Your task to perform on an android device: Open Google Maps and go to "Timeline" Image 0: 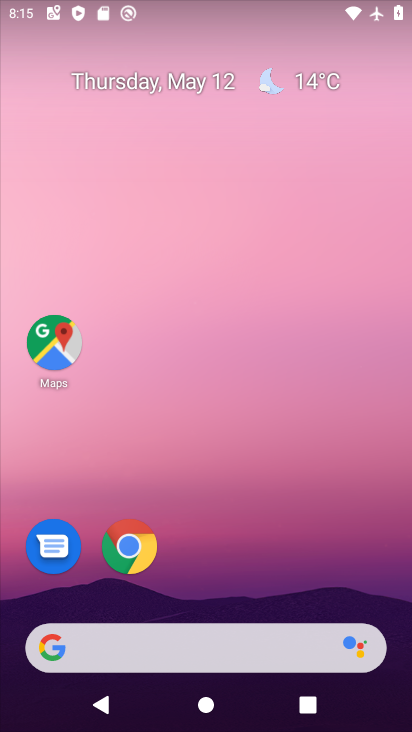
Step 0: click (49, 348)
Your task to perform on an android device: Open Google Maps and go to "Timeline" Image 1: 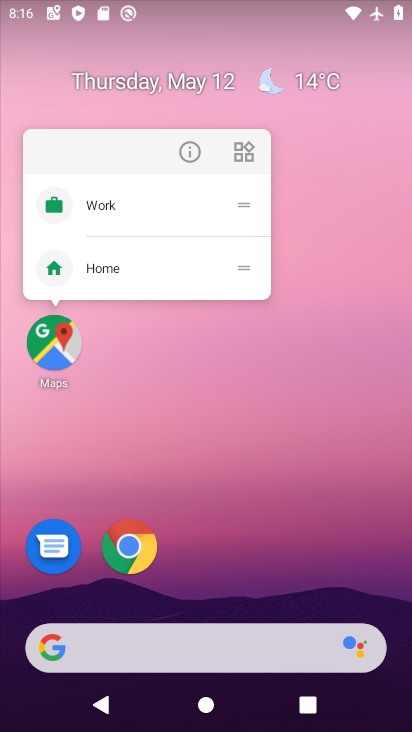
Step 1: click (59, 352)
Your task to perform on an android device: Open Google Maps and go to "Timeline" Image 2: 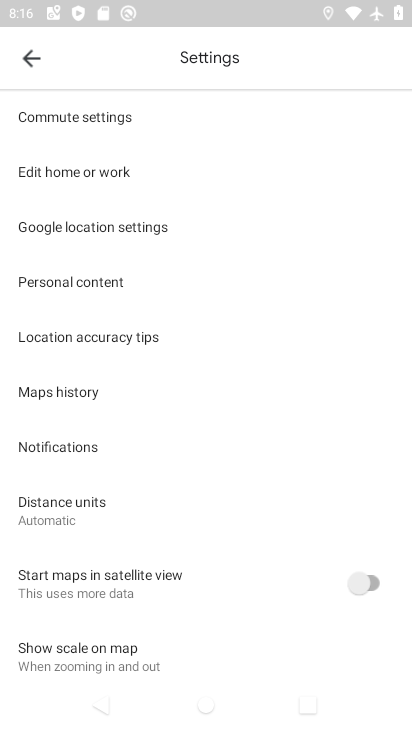
Step 2: click (34, 58)
Your task to perform on an android device: Open Google Maps and go to "Timeline" Image 3: 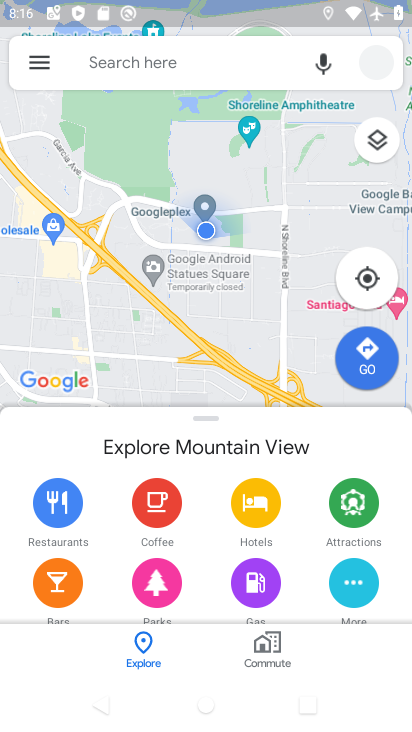
Step 3: click (29, 62)
Your task to perform on an android device: Open Google Maps and go to "Timeline" Image 4: 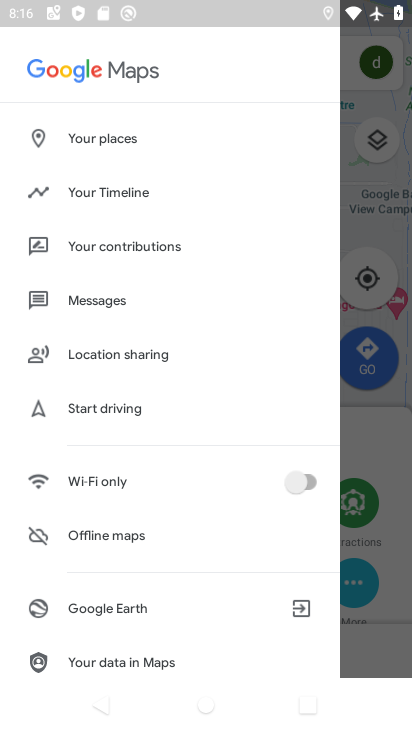
Step 4: click (130, 187)
Your task to perform on an android device: Open Google Maps and go to "Timeline" Image 5: 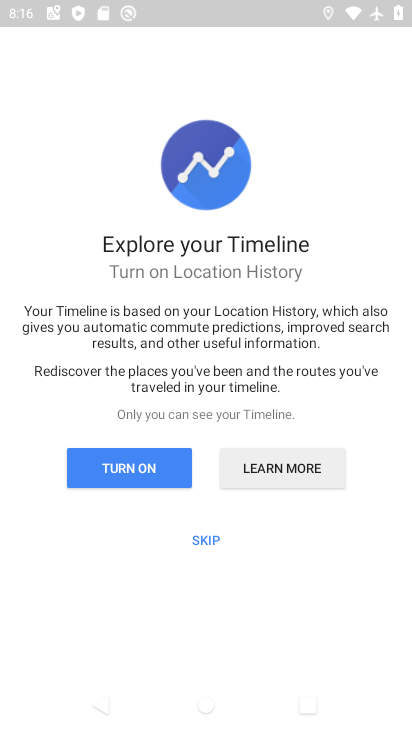
Step 5: click (202, 531)
Your task to perform on an android device: Open Google Maps and go to "Timeline" Image 6: 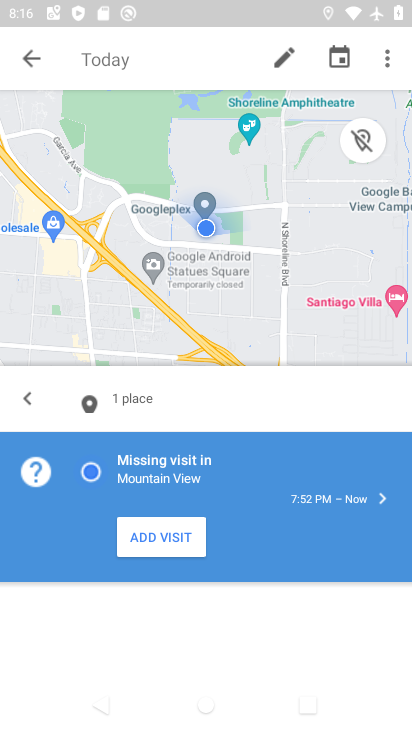
Step 6: task complete